Your task to perform on an android device: toggle priority inbox in the gmail app Image 0: 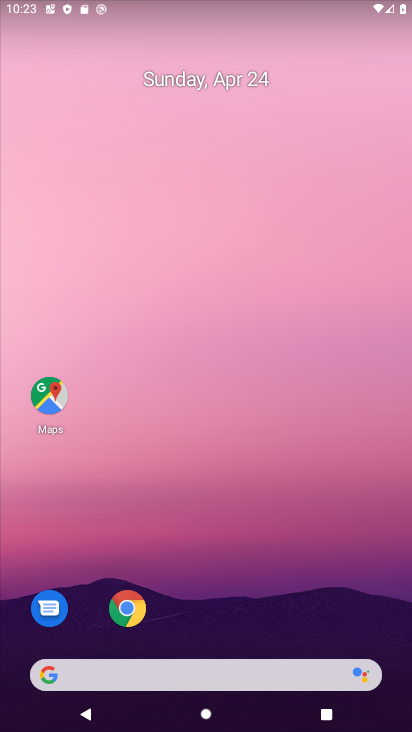
Step 0: drag from (227, 604) to (243, 53)
Your task to perform on an android device: toggle priority inbox in the gmail app Image 1: 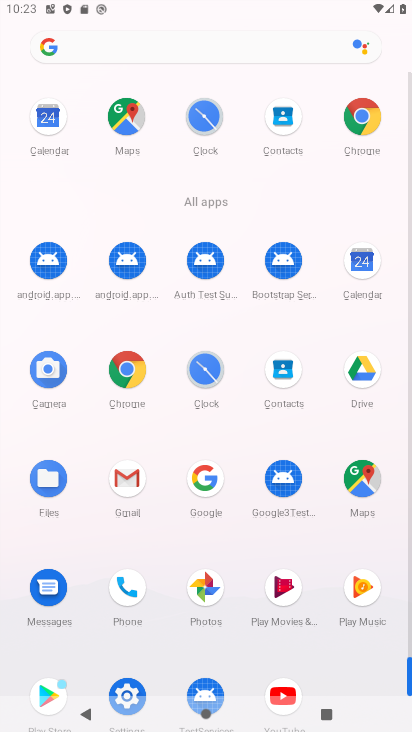
Step 1: click (125, 493)
Your task to perform on an android device: toggle priority inbox in the gmail app Image 2: 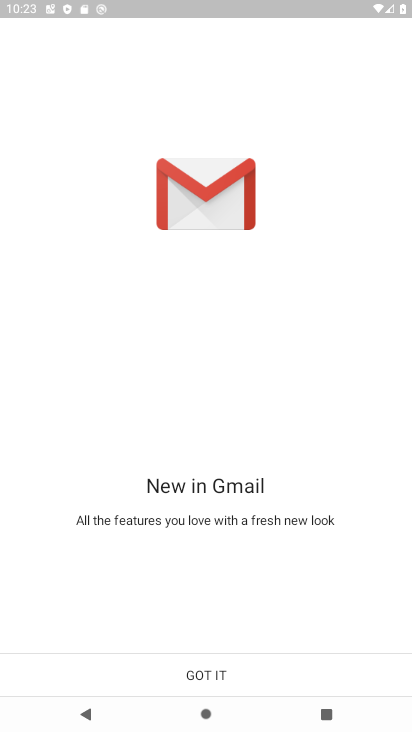
Step 2: click (213, 619)
Your task to perform on an android device: toggle priority inbox in the gmail app Image 3: 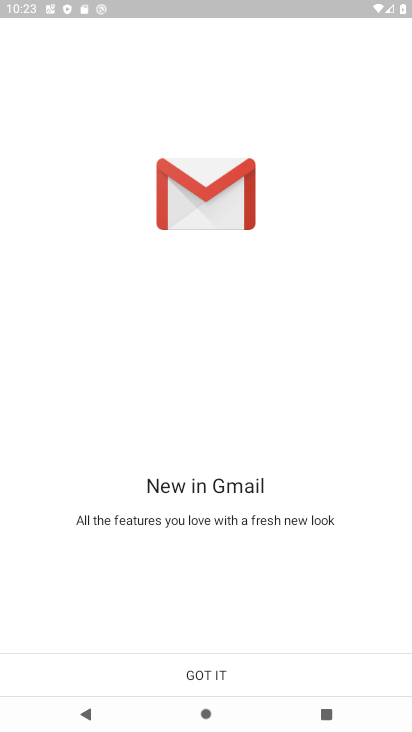
Step 3: click (224, 671)
Your task to perform on an android device: toggle priority inbox in the gmail app Image 4: 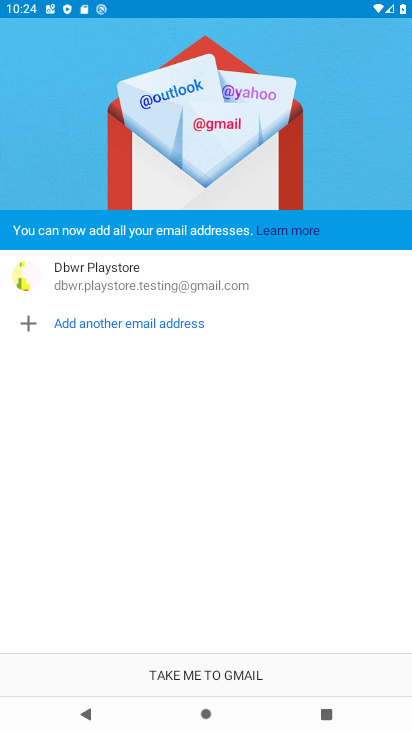
Step 4: click (243, 675)
Your task to perform on an android device: toggle priority inbox in the gmail app Image 5: 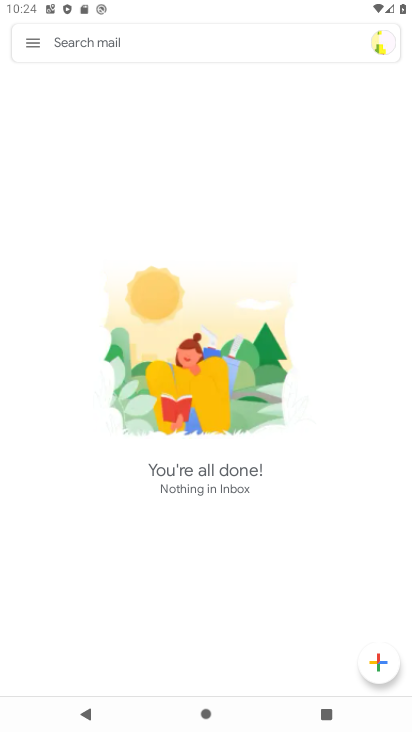
Step 5: click (28, 38)
Your task to perform on an android device: toggle priority inbox in the gmail app Image 6: 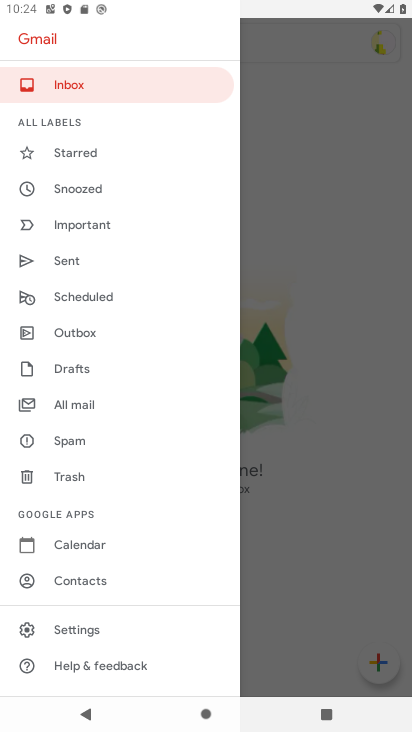
Step 6: click (102, 637)
Your task to perform on an android device: toggle priority inbox in the gmail app Image 7: 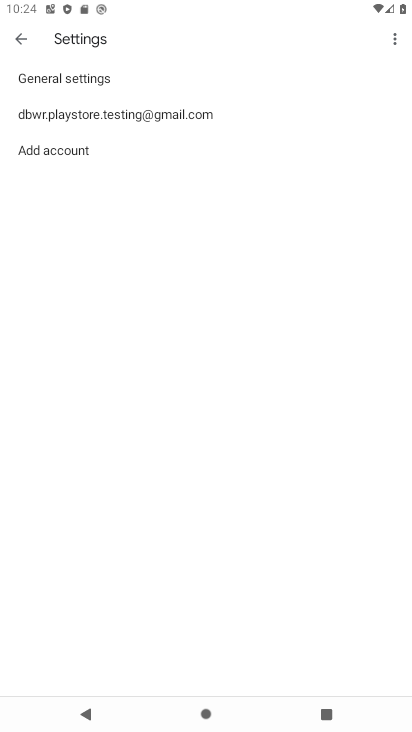
Step 7: click (129, 114)
Your task to perform on an android device: toggle priority inbox in the gmail app Image 8: 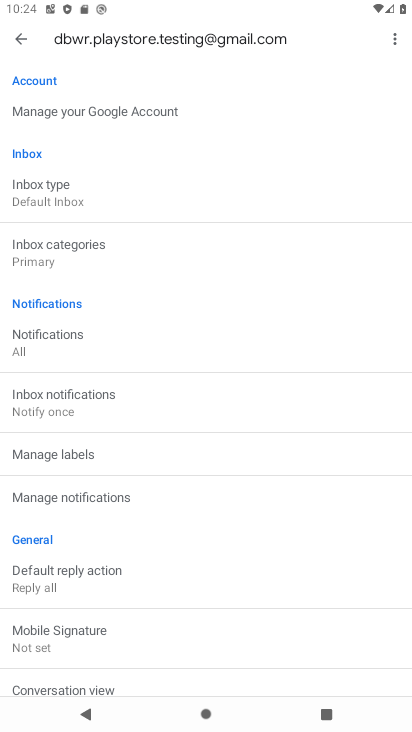
Step 8: drag from (130, 498) to (142, 602)
Your task to perform on an android device: toggle priority inbox in the gmail app Image 9: 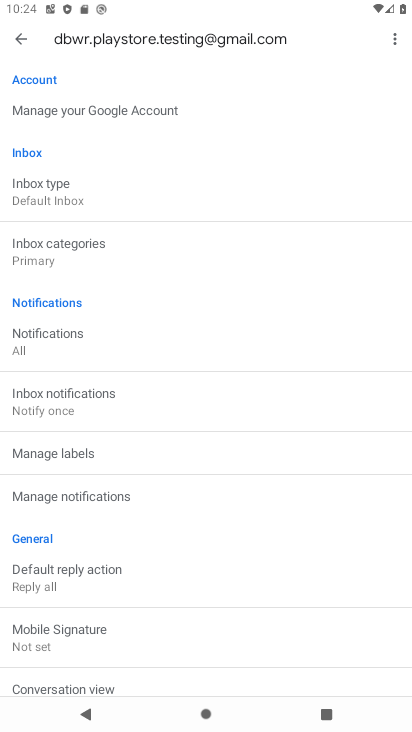
Step 9: click (87, 195)
Your task to perform on an android device: toggle priority inbox in the gmail app Image 10: 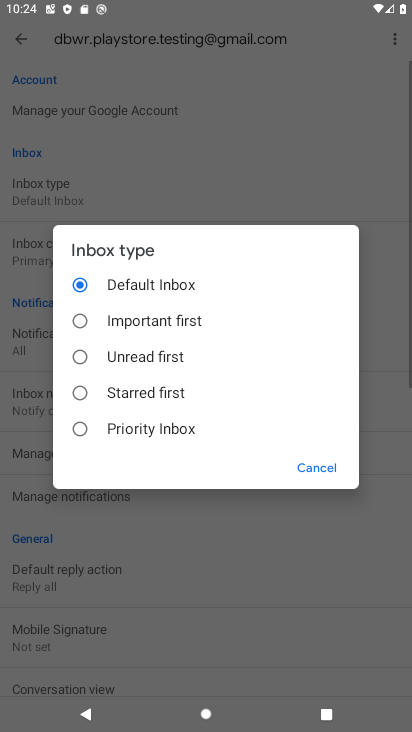
Step 10: click (148, 432)
Your task to perform on an android device: toggle priority inbox in the gmail app Image 11: 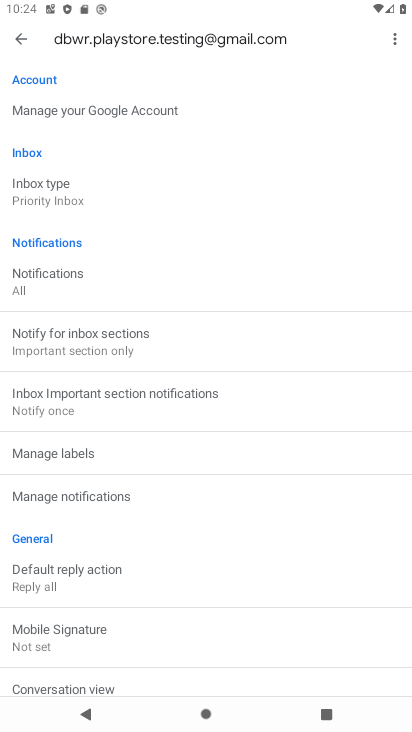
Step 11: task complete